Your task to perform on an android device: Open display settings Image 0: 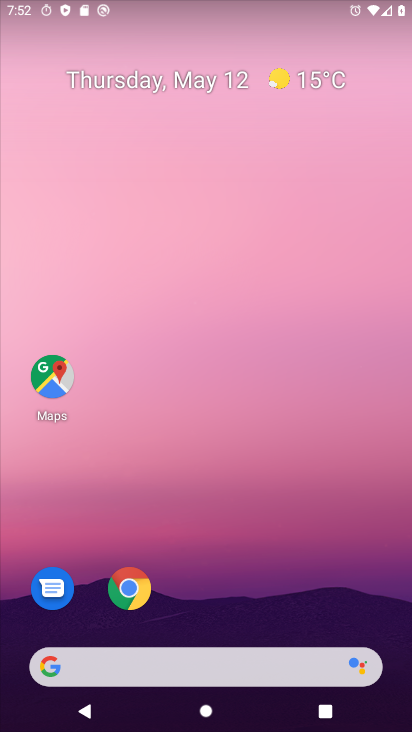
Step 0: drag from (218, 621) to (268, 213)
Your task to perform on an android device: Open display settings Image 1: 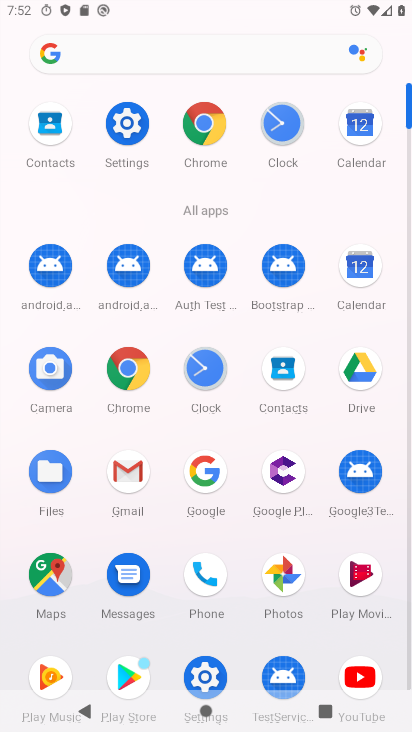
Step 1: click (135, 124)
Your task to perform on an android device: Open display settings Image 2: 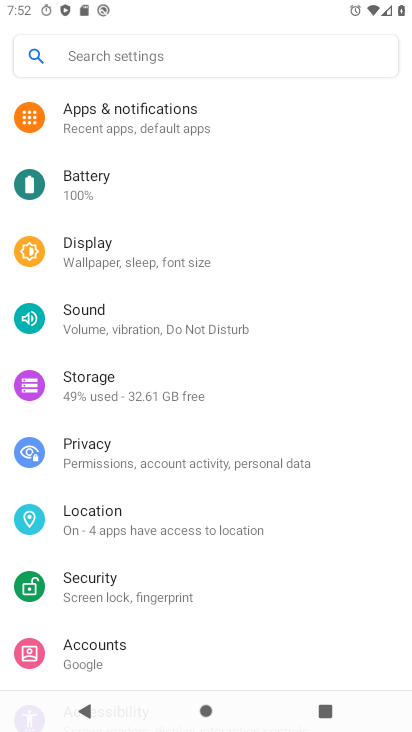
Step 2: click (121, 252)
Your task to perform on an android device: Open display settings Image 3: 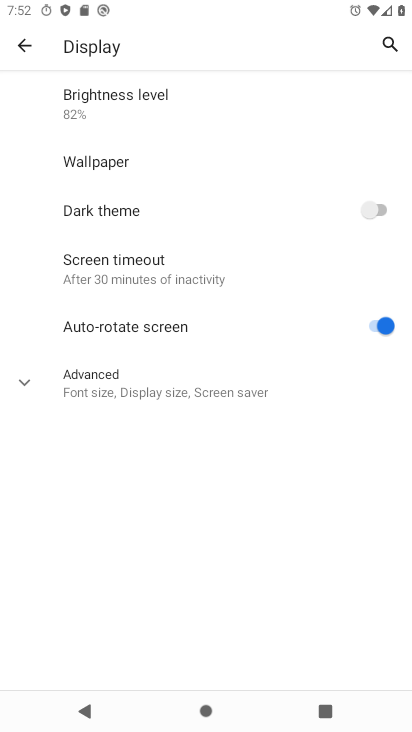
Step 3: task complete